Your task to perform on an android device: clear history in the chrome app Image 0: 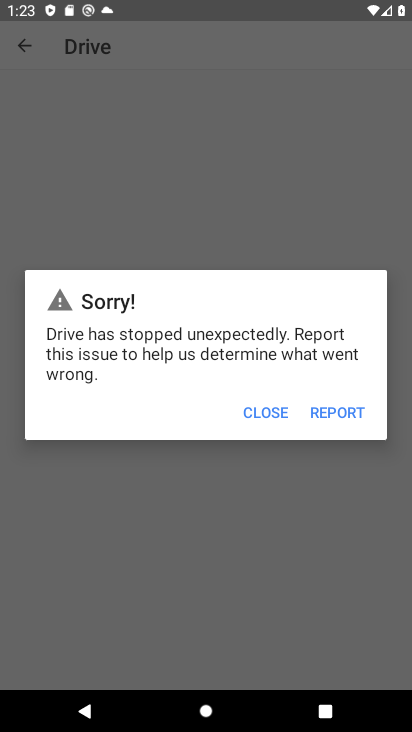
Step 0: press home button
Your task to perform on an android device: clear history in the chrome app Image 1: 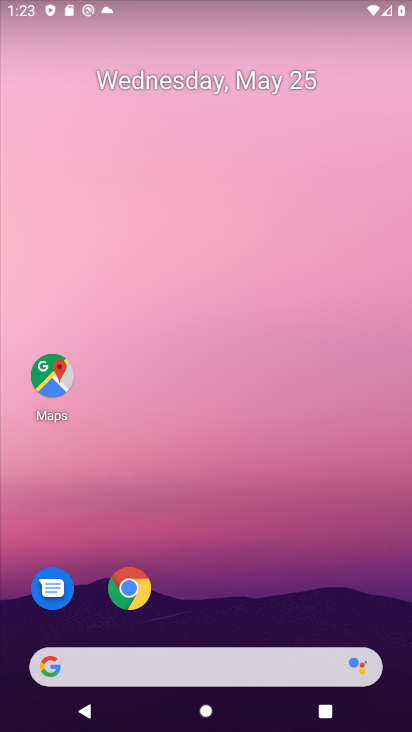
Step 1: click (129, 591)
Your task to perform on an android device: clear history in the chrome app Image 2: 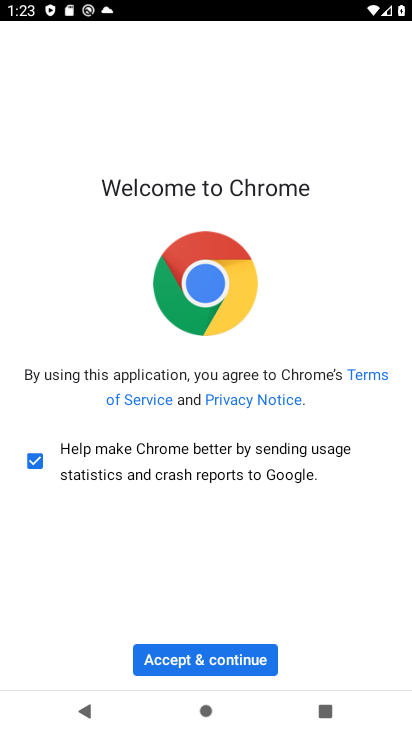
Step 2: click (212, 659)
Your task to perform on an android device: clear history in the chrome app Image 3: 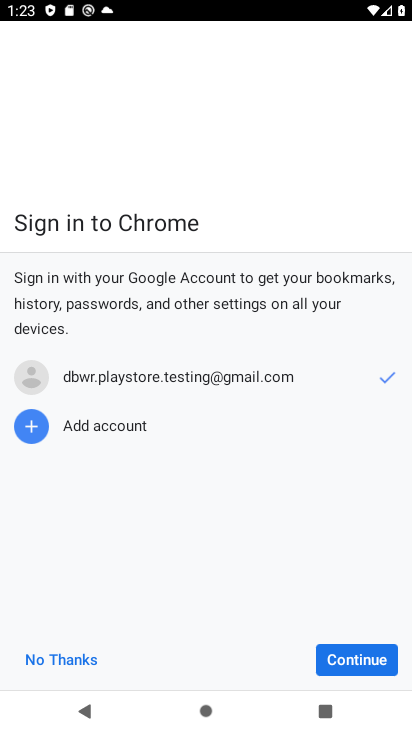
Step 3: click (353, 666)
Your task to perform on an android device: clear history in the chrome app Image 4: 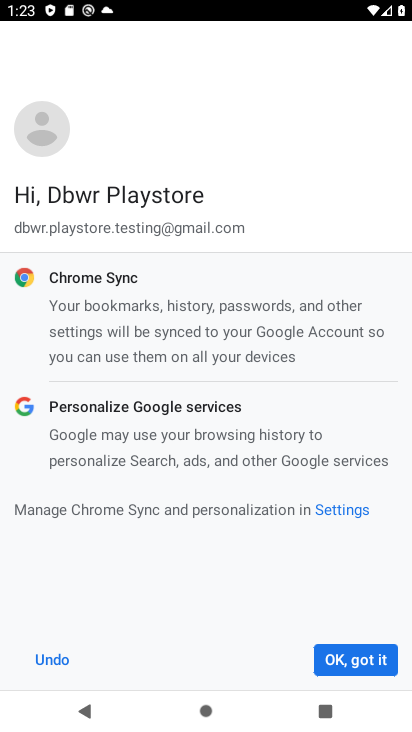
Step 4: click (354, 665)
Your task to perform on an android device: clear history in the chrome app Image 5: 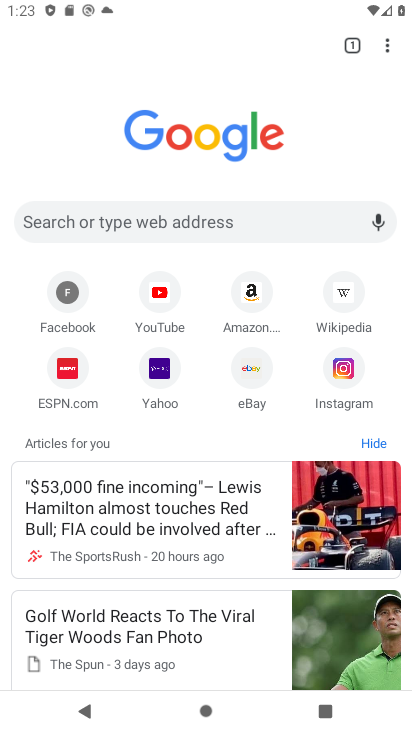
Step 5: click (382, 43)
Your task to perform on an android device: clear history in the chrome app Image 6: 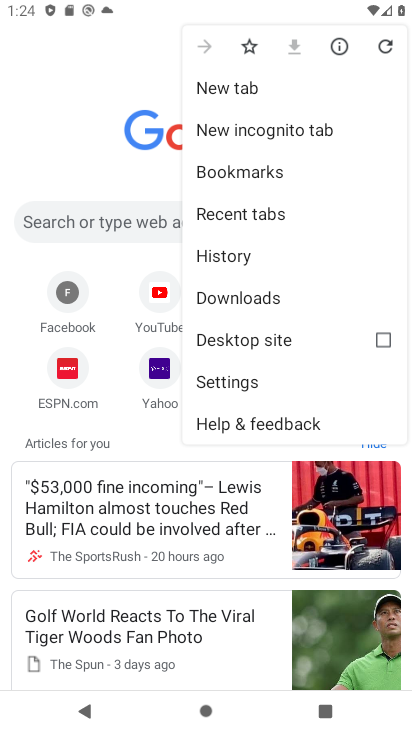
Step 6: click (237, 253)
Your task to perform on an android device: clear history in the chrome app Image 7: 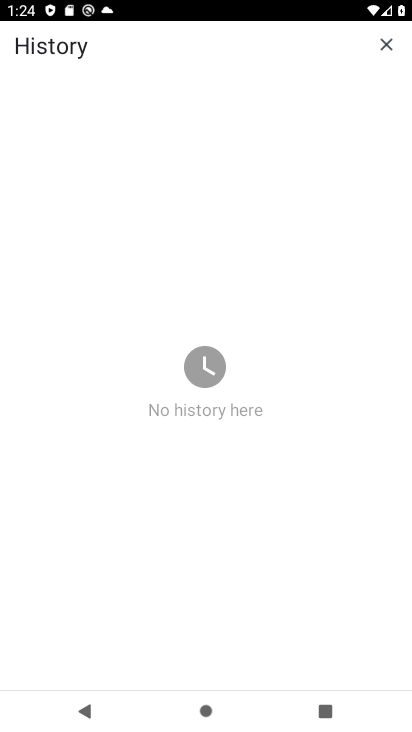
Step 7: task complete